Your task to perform on an android device: see tabs open on other devices in the chrome app Image 0: 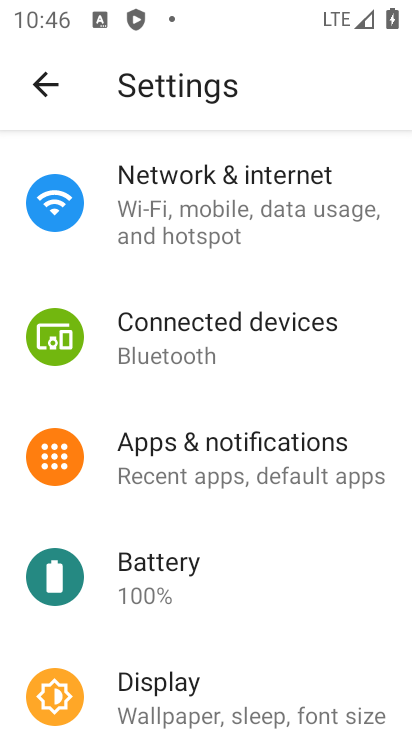
Step 0: press home button
Your task to perform on an android device: see tabs open on other devices in the chrome app Image 1: 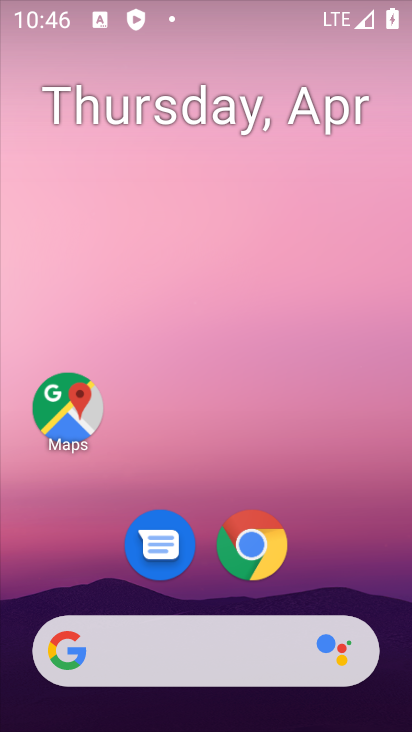
Step 1: click (247, 526)
Your task to perform on an android device: see tabs open on other devices in the chrome app Image 2: 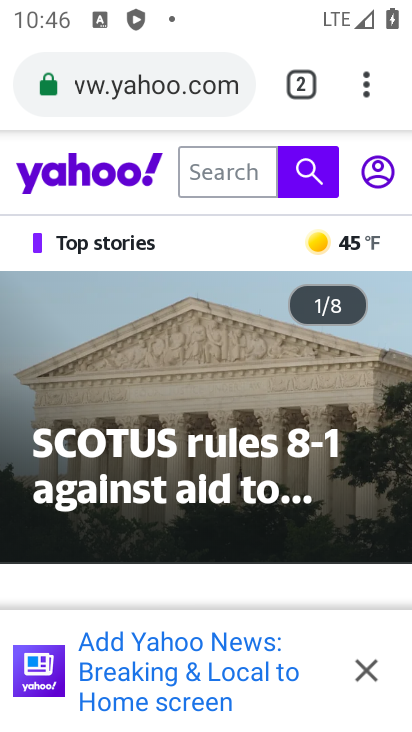
Step 2: click (314, 82)
Your task to perform on an android device: see tabs open on other devices in the chrome app Image 3: 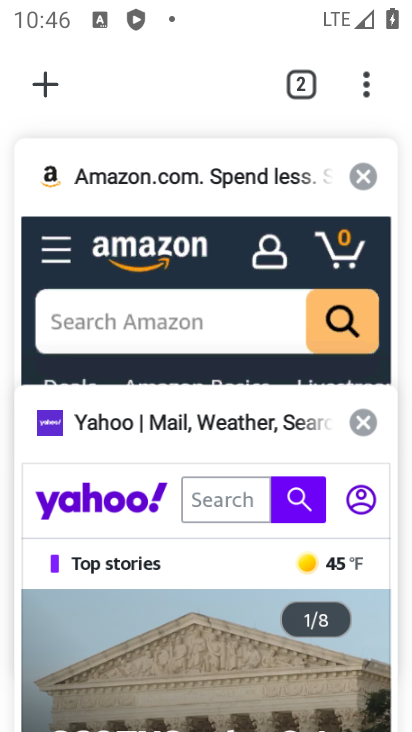
Step 3: task complete